Your task to perform on an android device: Open notification settings Image 0: 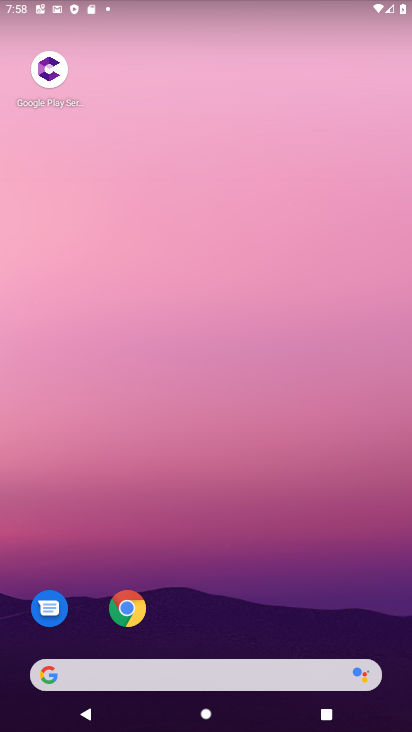
Step 0: drag from (205, 616) to (264, 149)
Your task to perform on an android device: Open notification settings Image 1: 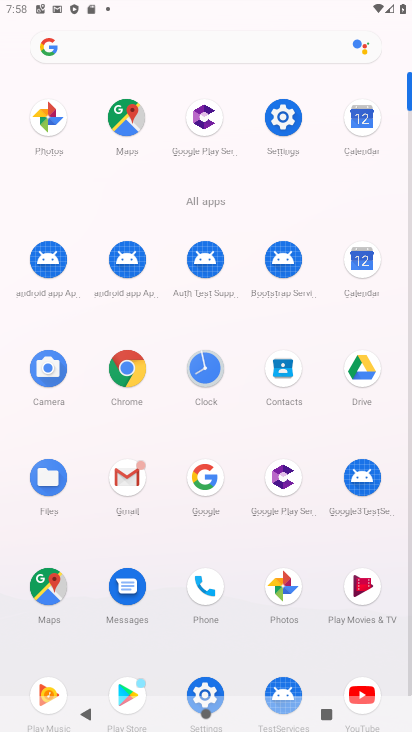
Step 1: click (277, 124)
Your task to perform on an android device: Open notification settings Image 2: 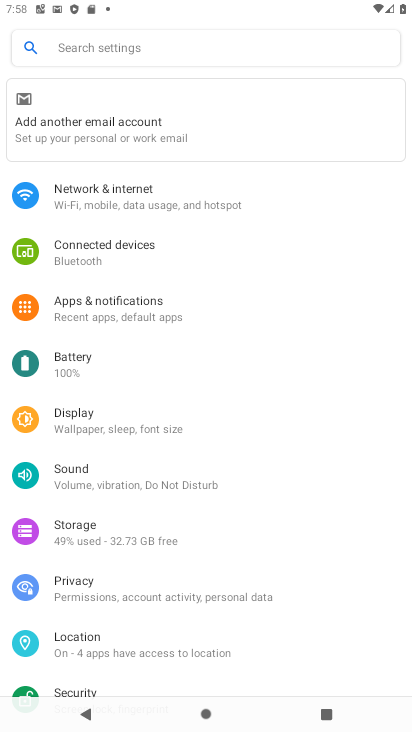
Step 2: click (110, 305)
Your task to perform on an android device: Open notification settings Image 3: 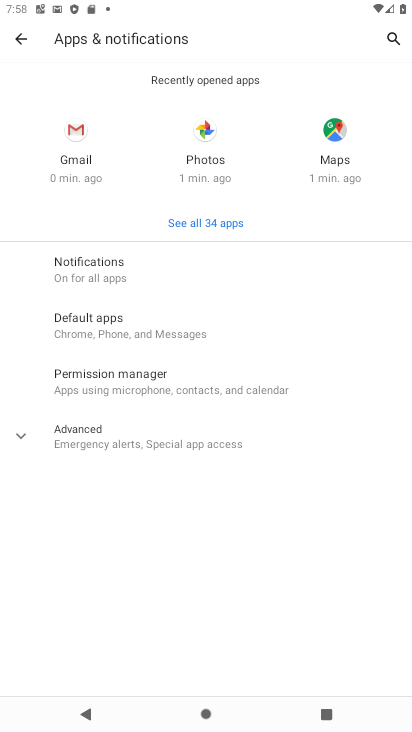
Step 3: task complete